Your task to perform on an android device: Go to Maps Image 0: 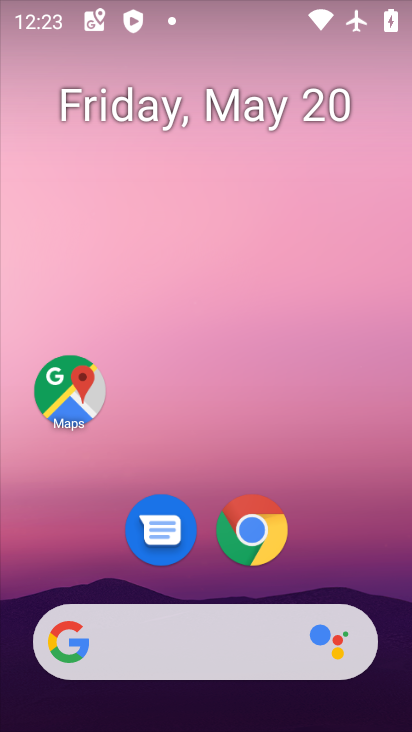
Step 0: click (67, 385)
Your task to perform on an android device: Go to Maps Image 1: 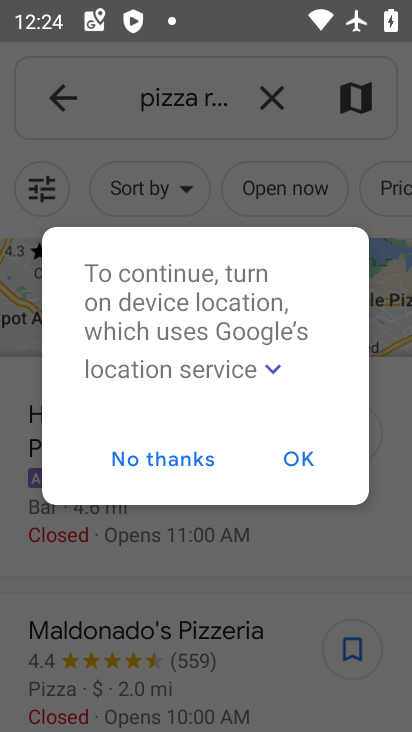
Step 1: click (188, 466)
Your task to perform on an android device: Go to Maps Image 2: 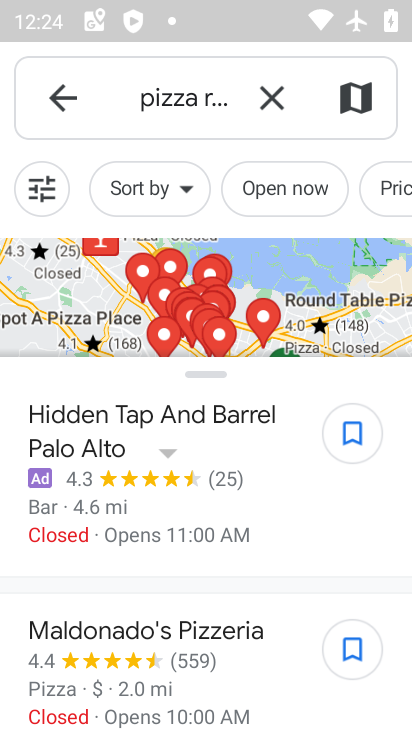
Step 2: click (66, 94)
Your task to perform on an android device: Go to Maps Image 3: 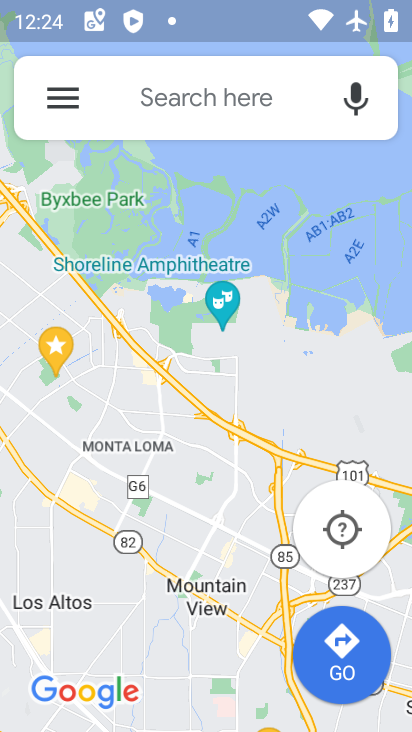
Step 3: task complete